Your task to perform on an android device: toggle translation in the chrome app Image 0: 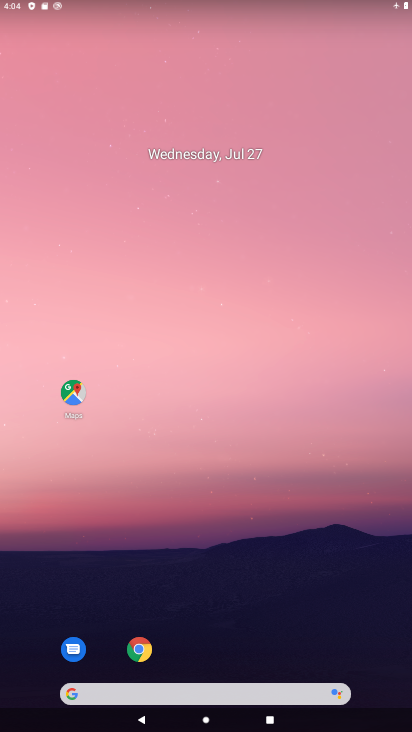
Step 0: click (147, 656)
Your task to perform on an android device: toggle translation in the chrome app Image 1: 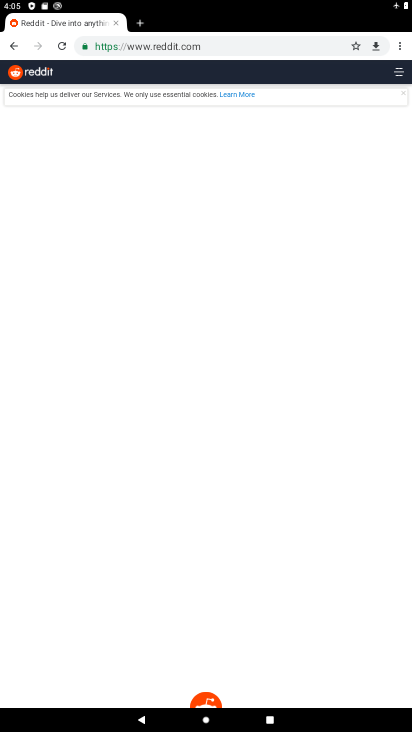
Step 1: click (399, 51)
Your task to perform on an android device: toggle translation in the chrome app Image 2: 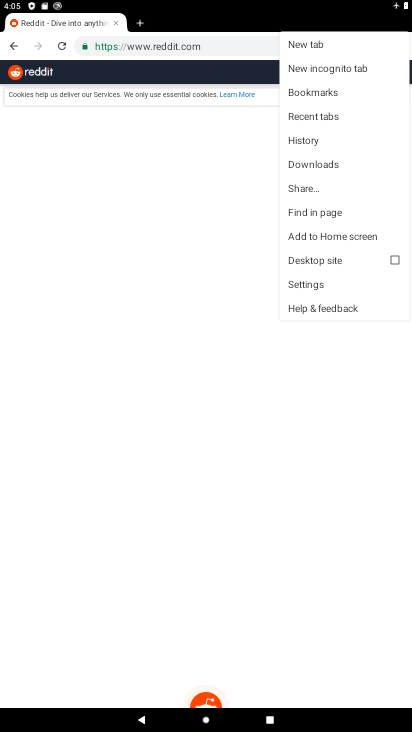
Step 2: click (307, 281)
Your task to perform on an android device: toggle translation in the chrome app Image 3: 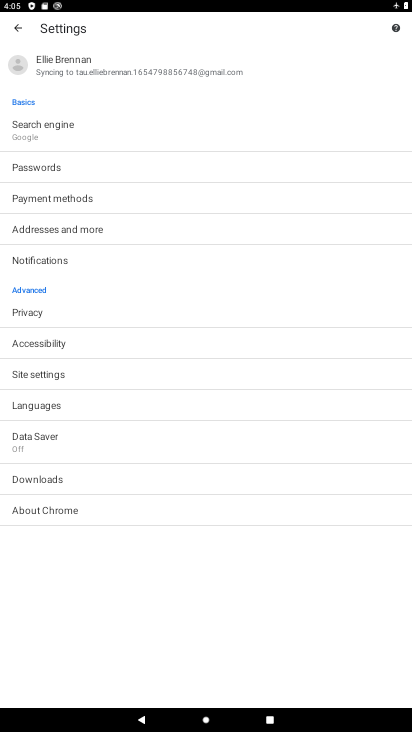
Step 3: click (198, 397)
Your task to perform on an android device: toggle translation in the chrome app Image 4: 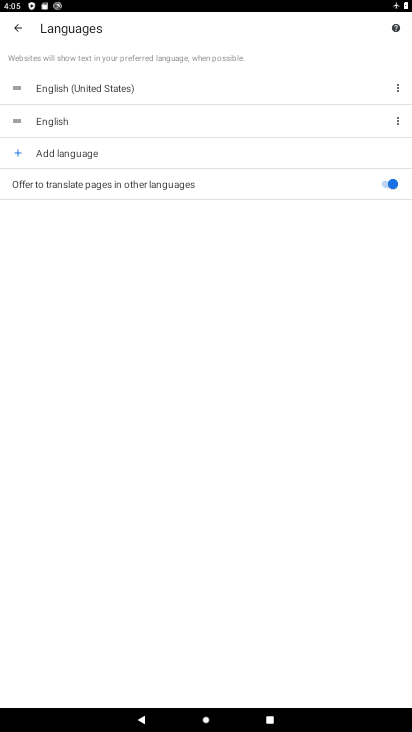
Step 4: click (377, 183)
Your task to perform on an android device: toggle translation in the chrome app Image 5: 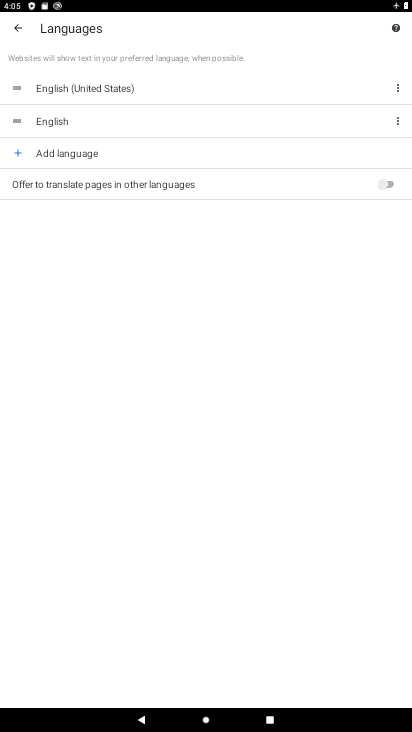
Step 5: task complete